Your task to perform on an android device: Open wifi settings Image 0: 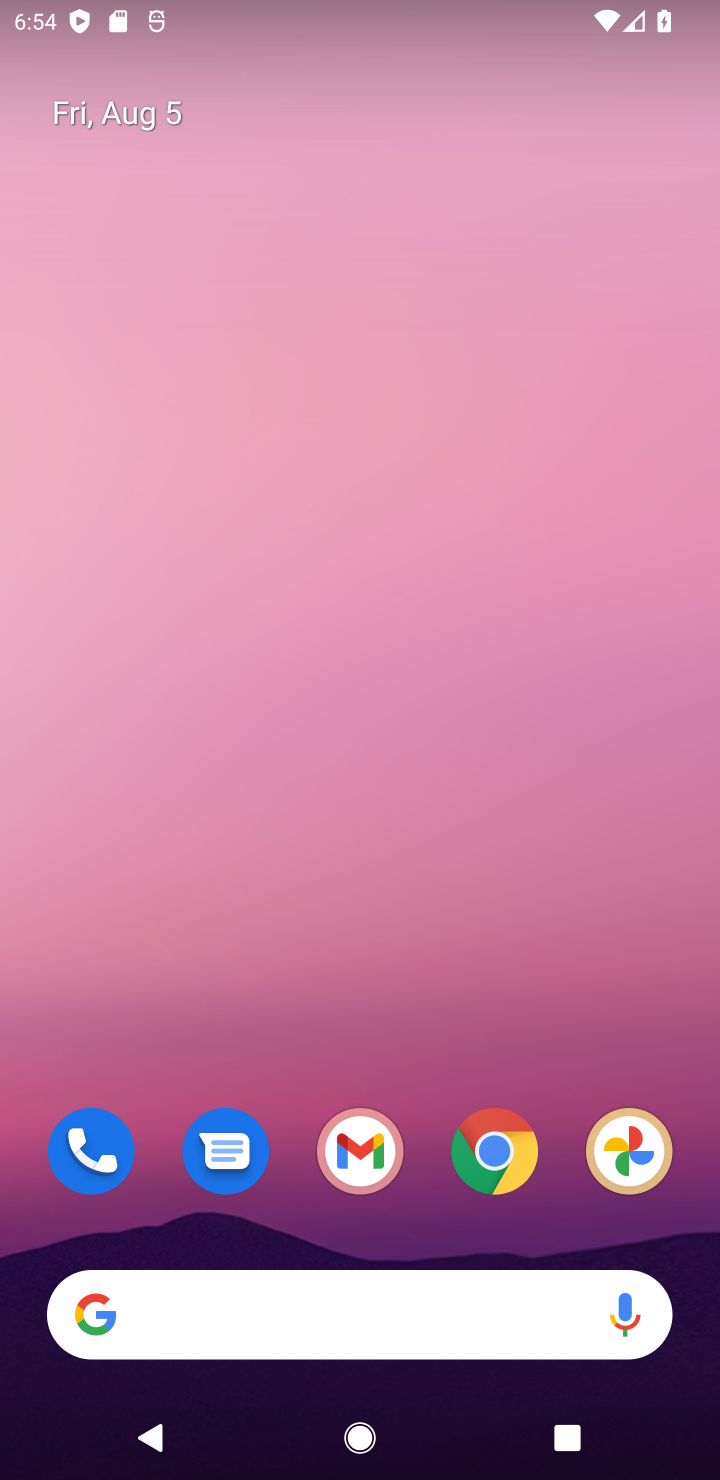
Step 0: drag from (511, 961) to (444, 44)
Your task to perform on an android device: Open wifi settings Image 1: 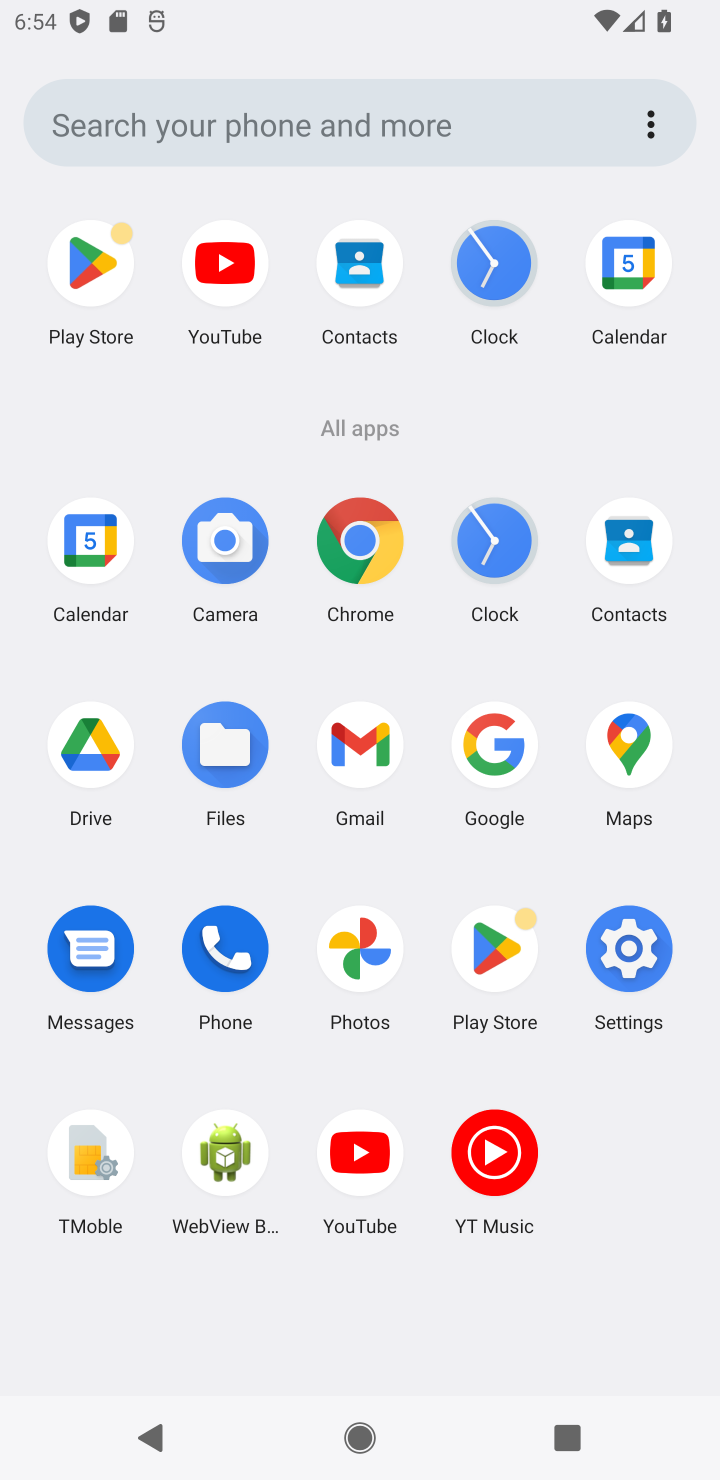
Step 1: click (640, 934)
Your task to perform on an android device: Open wifi settings Image 2: 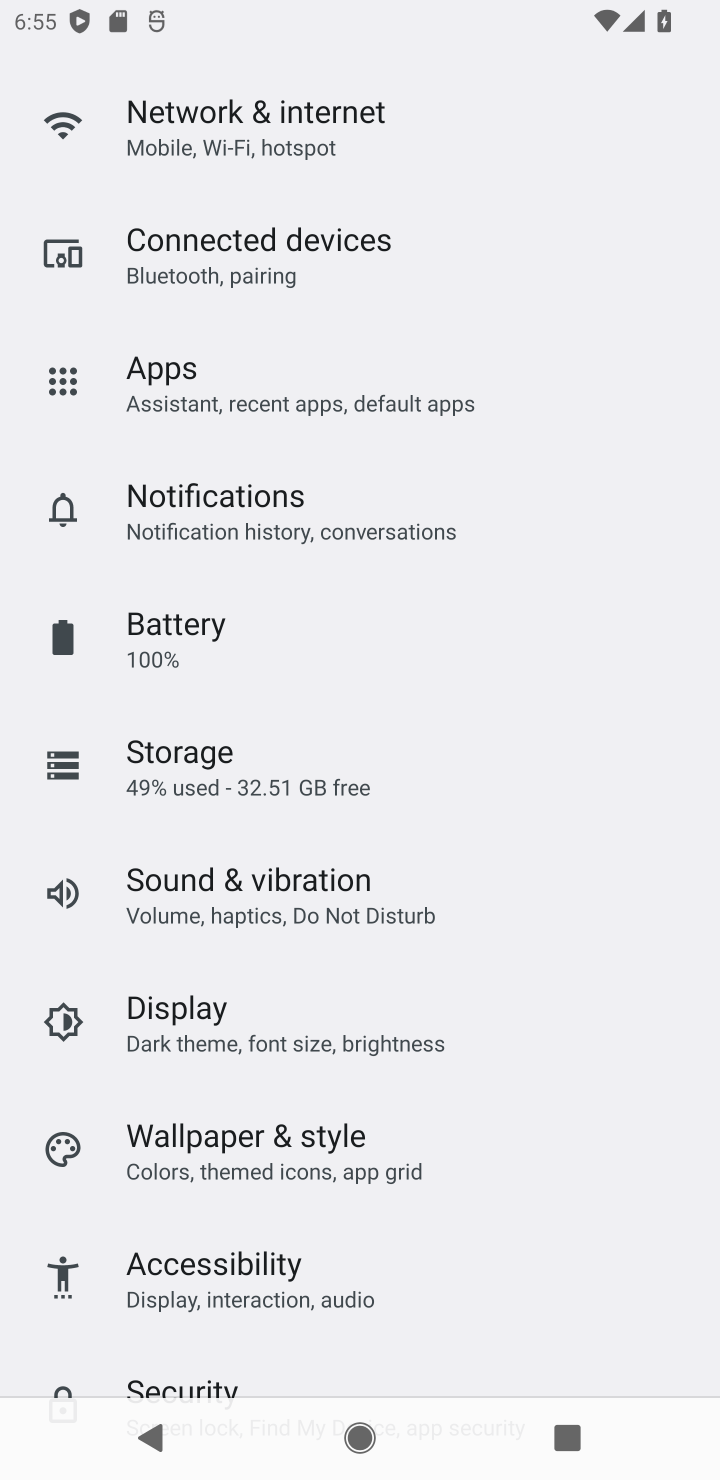
Step 2: click (207, 144)
Your task to perform on an android device: Open wifi settings Image 3: 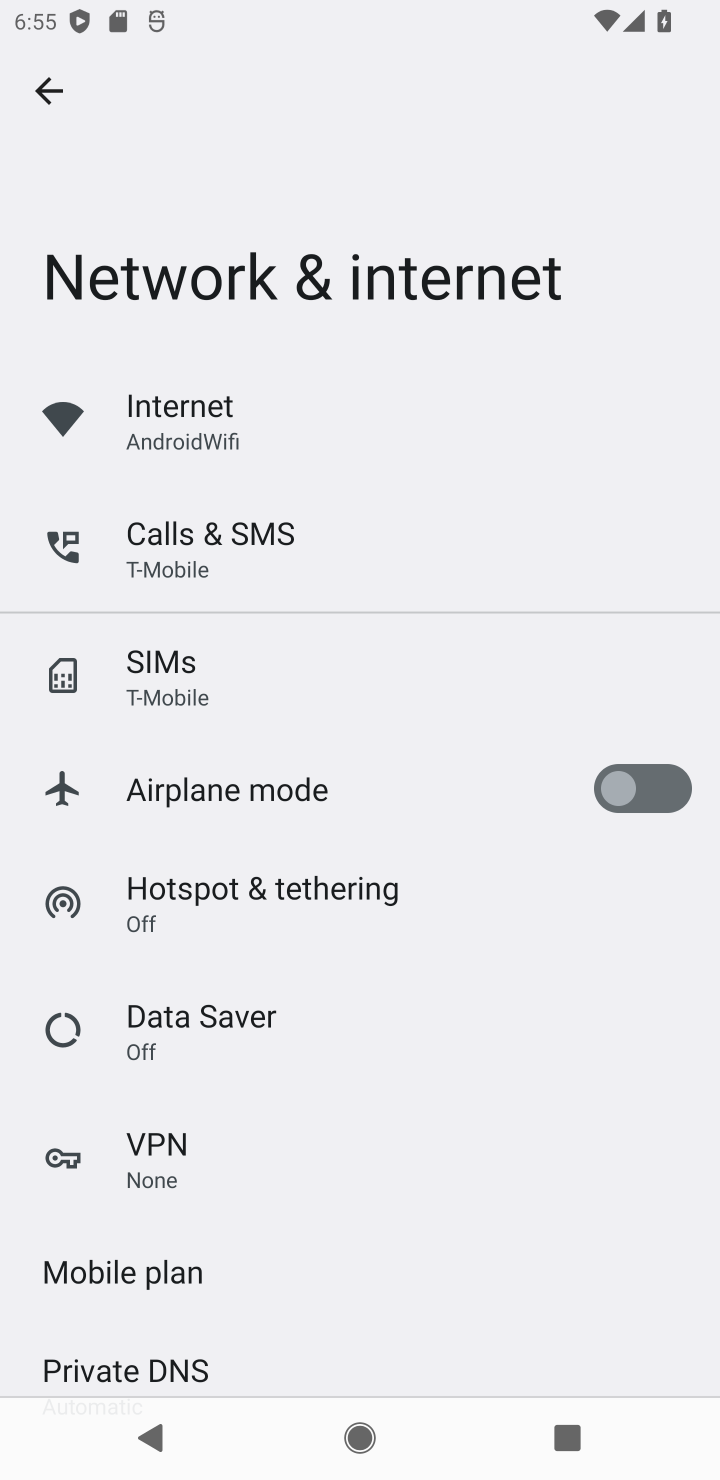
Step 3: click (261, 415)
Your task to perform on an android device: Open wifi settings Image 4: 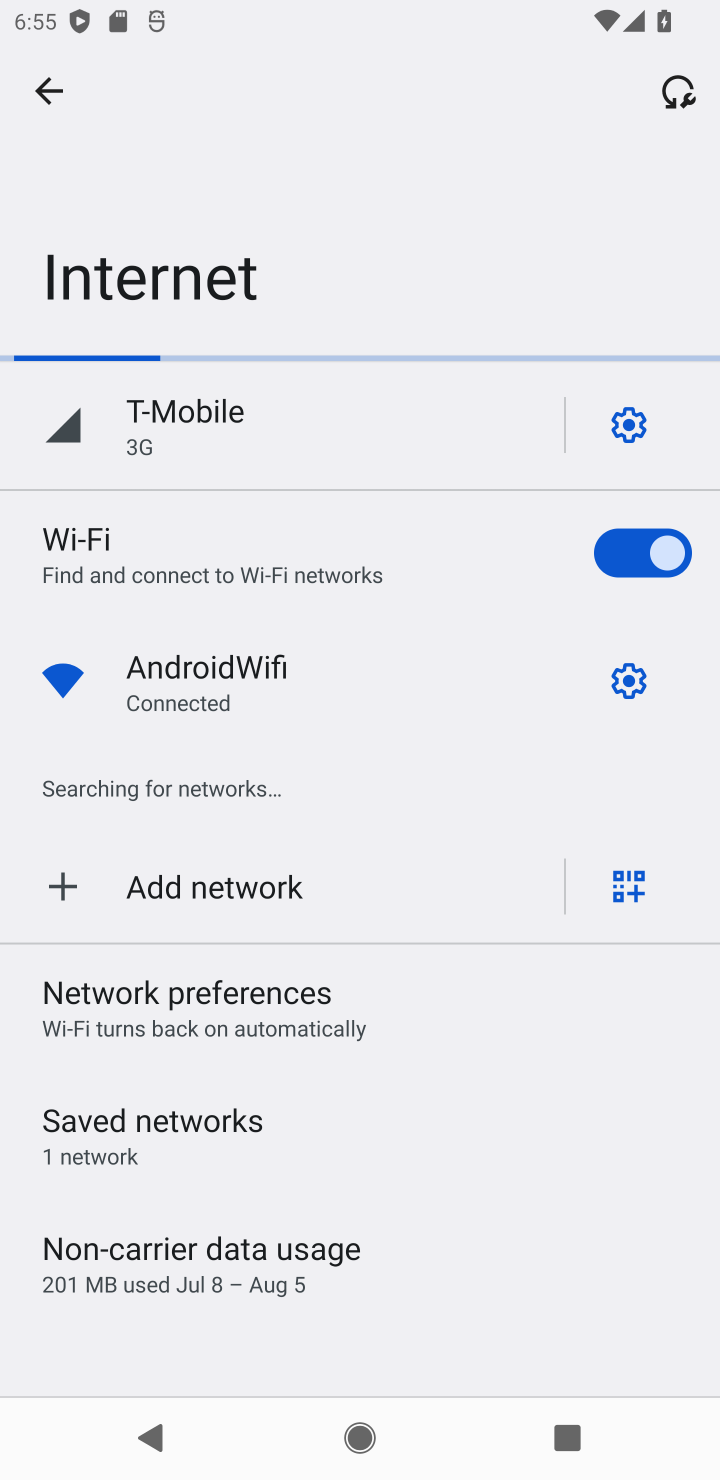
Step 4: task complete